Your task to perform on an android device: find which apps use the phone's location Image 0: 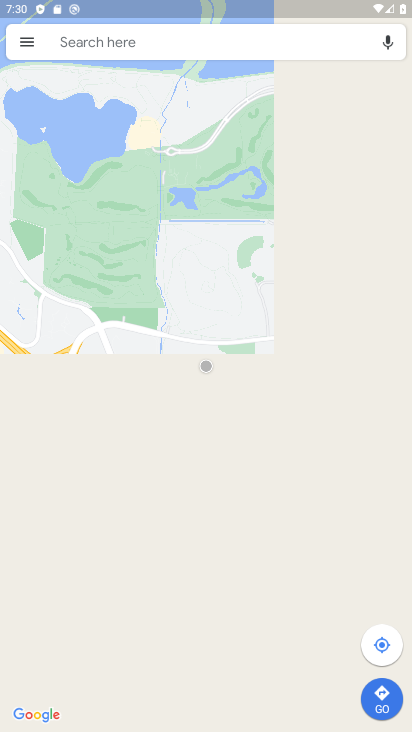
Step 0: press home button
Your task to perform on an android device: find which apps use the phone's location Image 1: 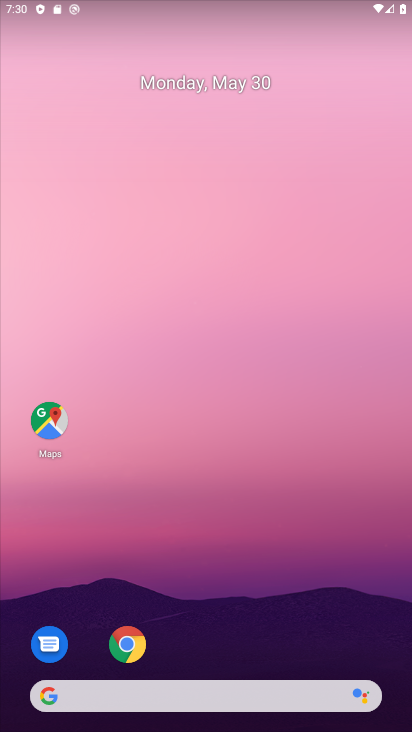
Step 1: drag from (279, 615) to (176, 94)
Your task to perform on an android device: find which apps use the phone's location Image 2: 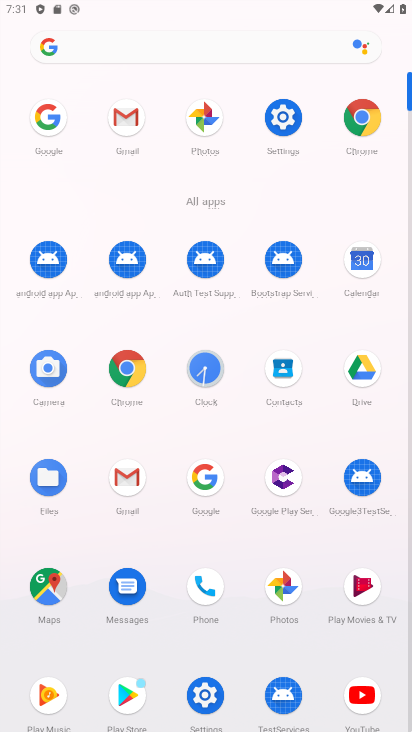
Step 2: click (284, 117)
Your task to perform on an android device: find which apps use the phone's location Image 3: 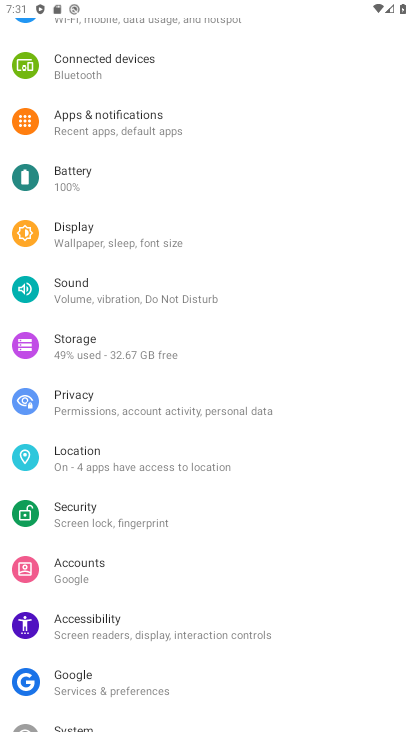
Step 3: drag from (140, 298) to (154, 238)
Your task to perform on an android device: find which apps use the phone's location Image 4: 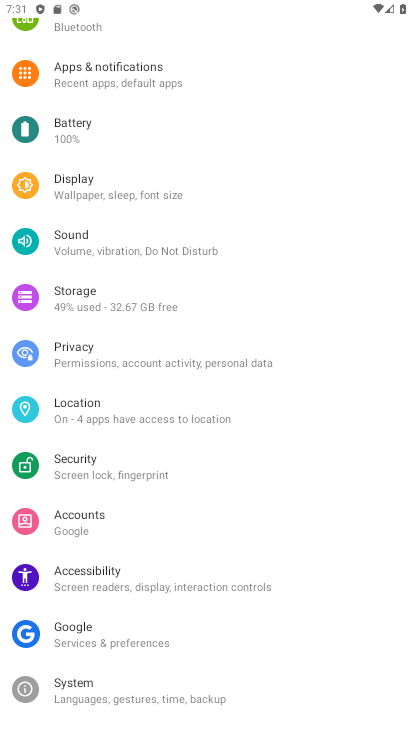
Step 4: click (105, 419)
Your task to perform on an android device: find which apps use the phone's location Image 5: 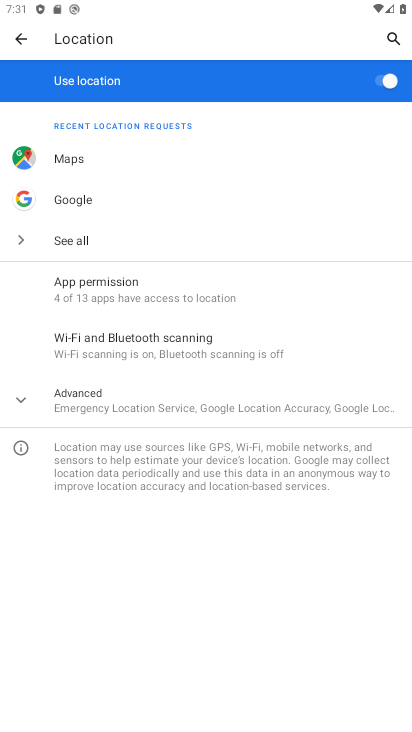
Step 5: click (71, 288)
Your task to perform on an android device: find which apps use the phone's location Image 6: 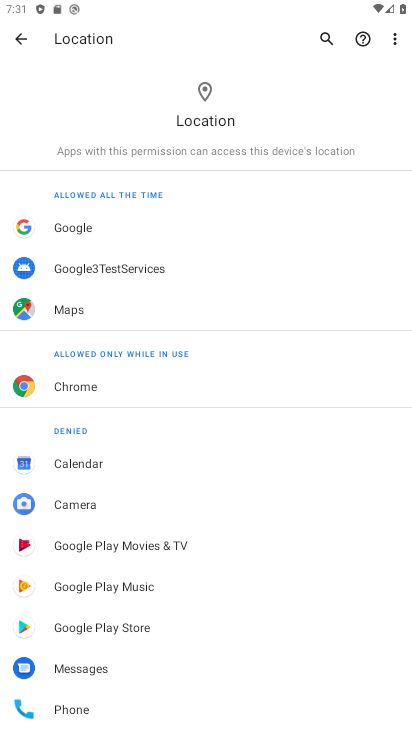
Step 6: click (80, 307)
Your task to perform on an android device: find which apps use the phone's location Image 7: 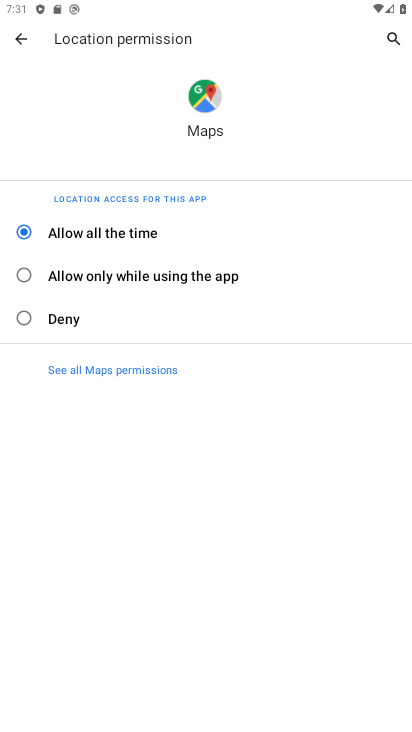
Step 7: click (20, 227)
Your task to perform on an android device: find which apps use the phone's location Image 8: 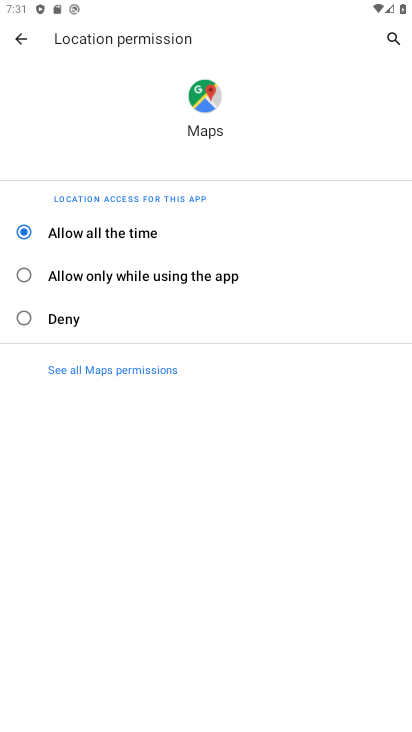
Step 8: task complete